Your task to perform on an android device: star an email in the gmail app Image 0: 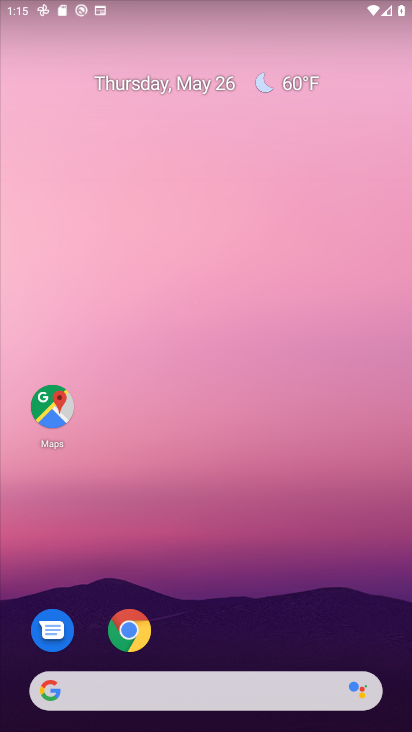
Step 0: drag from (343, 592) to (277, 5)
Your task to perform on an android device: star an email in the gmail app Image 1: 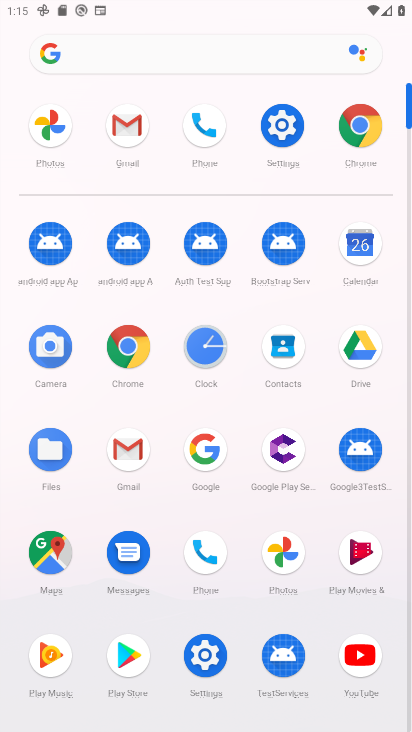
Step 1: click (126, 139)
Your task to perform on an android device: star an email in the gmail app Image 2: 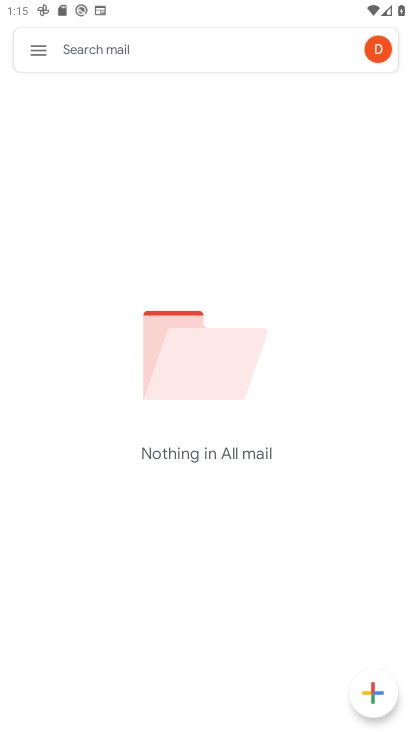
Step 2: task complete